Your task to perform on an android device: What is the news today? Image 0: 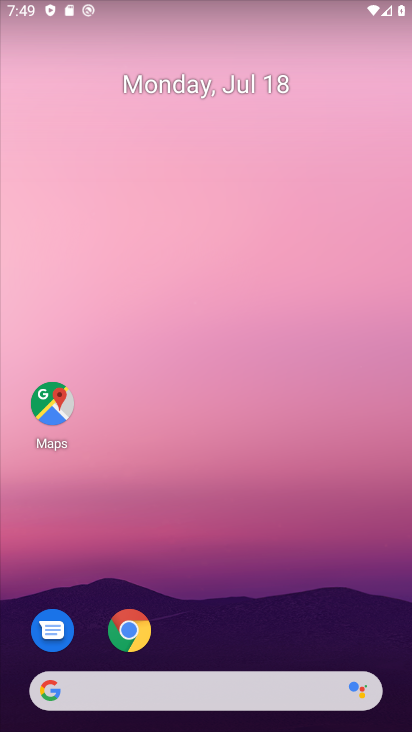
Step 0: drag from (0, 231) to (403, 233)
Your task to perform on an android device: What is the news today? Image 1: 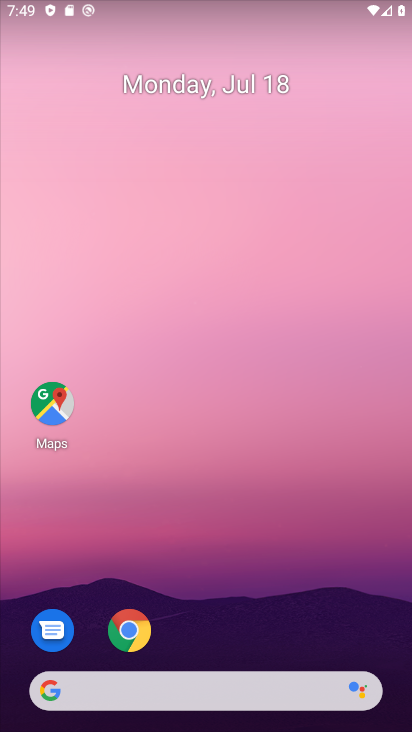
Step 1: task complete